Your task to perform on an android device: Search for vegetarian restaurants on Maps Image 0: 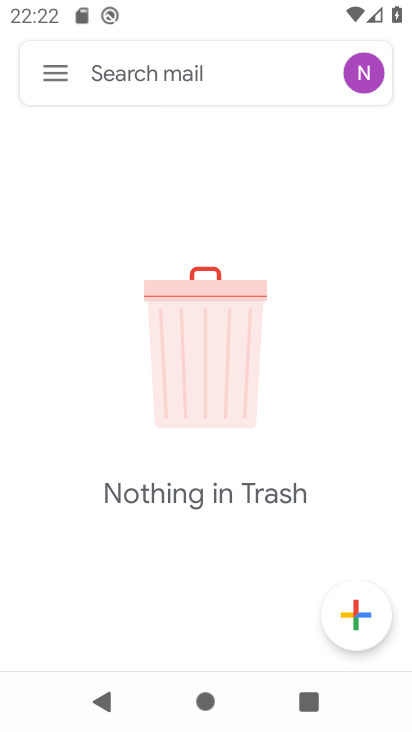
Step 0: press home button
Your task to perform on an android device: Search for vegetarian restaurants on Maps Image 1: 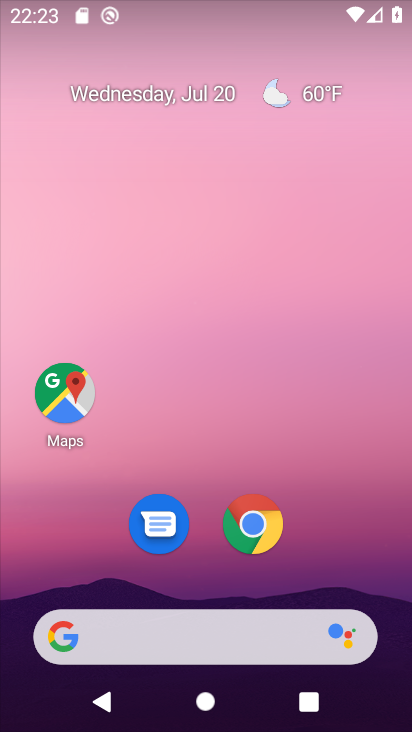
Step 1: click (64, 394)
Your task to perform on an android device: Search for vegetarian restaurants on Maps Image 2: 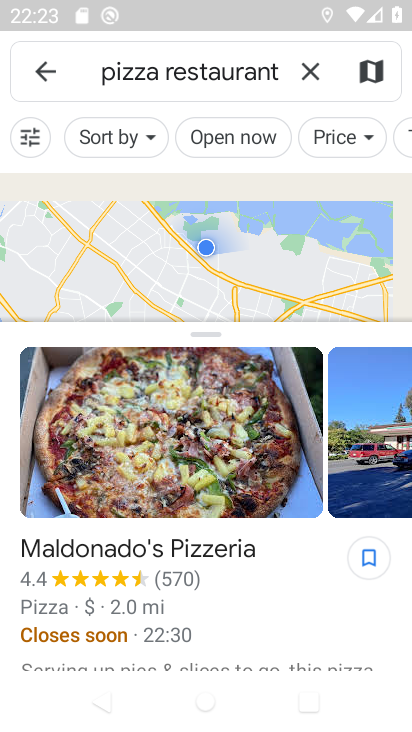
Step 2: click (313, 68)
Your task to perform on an android device: Search for vegetarian restaurants on Maps Image 3: 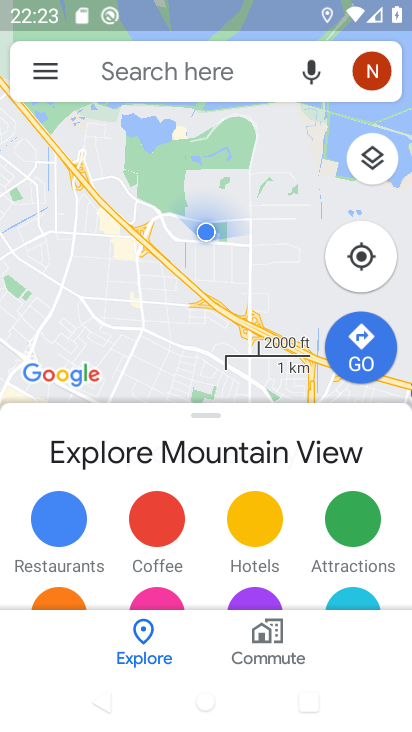
Step 3: click (225, 70)
Your task to perform on an android device: Search for vegetarian restaurants on Maps Image 4: 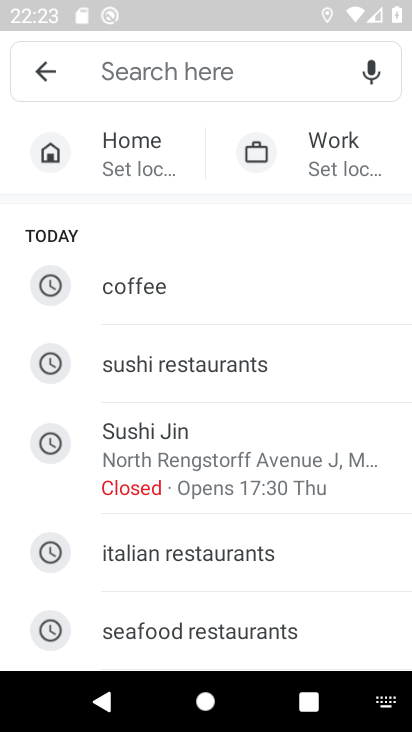
Step 4: drag from (270, 584) to (284, 210)
Your task to perform on an android device: Search for vegetarian restaurants on Maps Image 5: 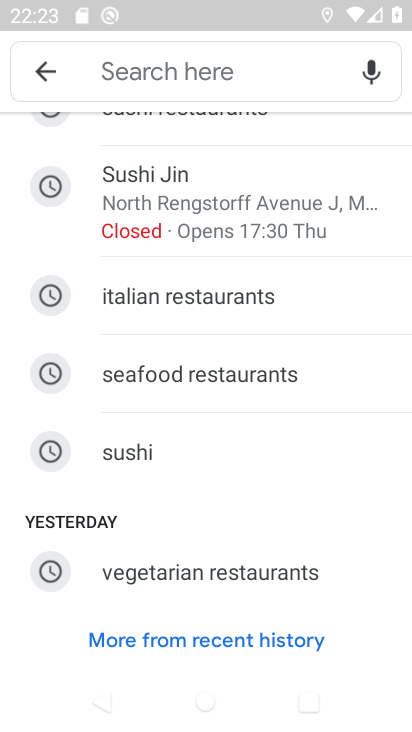
Step 5: click (237, 576)
Your task to perform on an android device: Search for vegetarian restaurants on Maps Image 6: 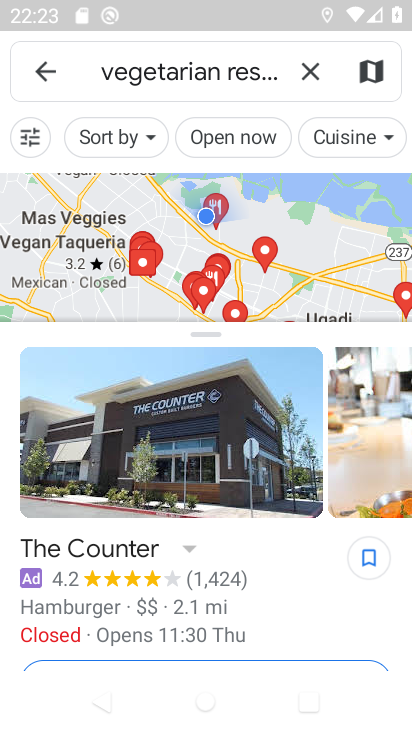
Step 6: task complete